Your task to perform on an android device: Open settings on Google Maps Image 0: 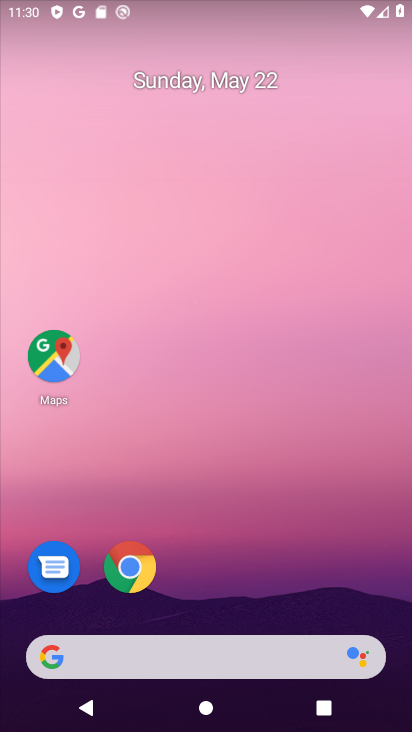
Step 0: click (37, 350)
Your task to perform on an android device: Open settings on Google Maps Image 1: 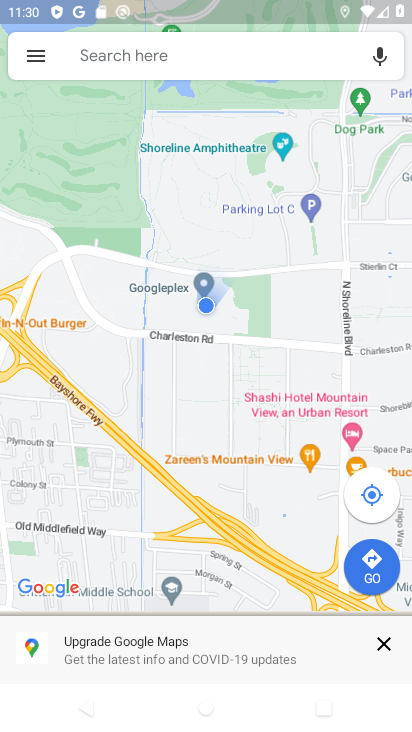
Step 1: click (24, 63)
Your task to perform on an android device: Open settings on Google Maps Image 2: 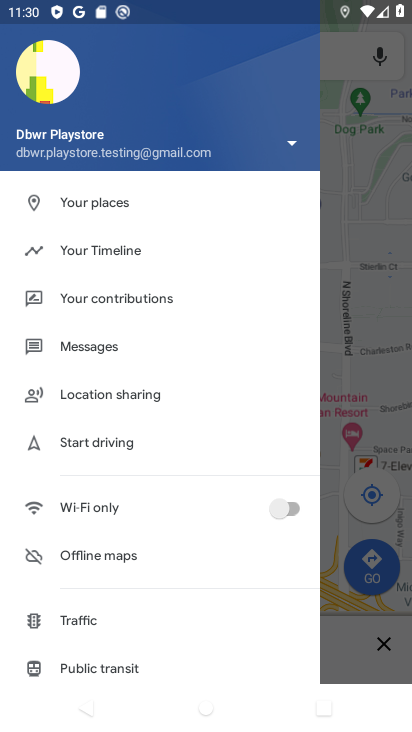
Step 2: drag from (101, 640) to (130, 256)
Your task to perform on an android device: Open settings on Google Maps Image 3: 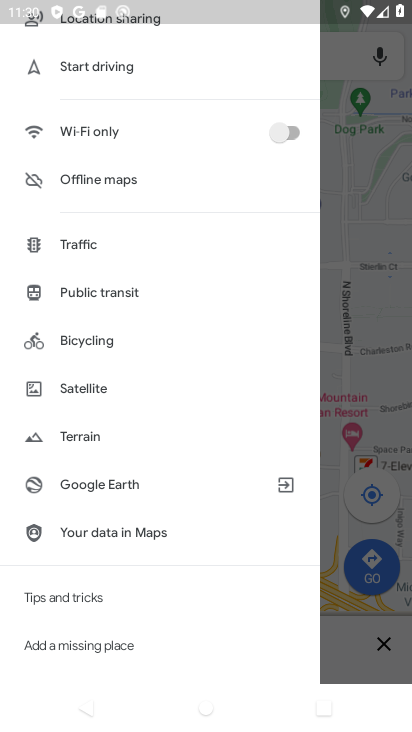
Step 3: drag from (52, 608) to (115, 277)
Your task to perform on an android device: Open settings on Google Maps Image 4: 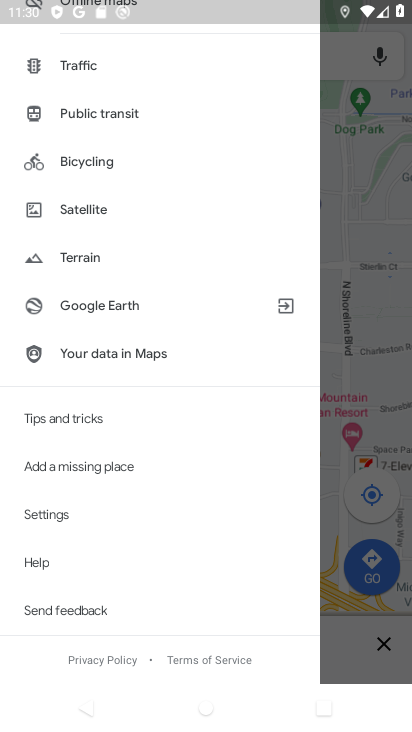
Step 4: click (46, 519)
Your task to perform on an android device: Open settings on Google Maps Image 5: 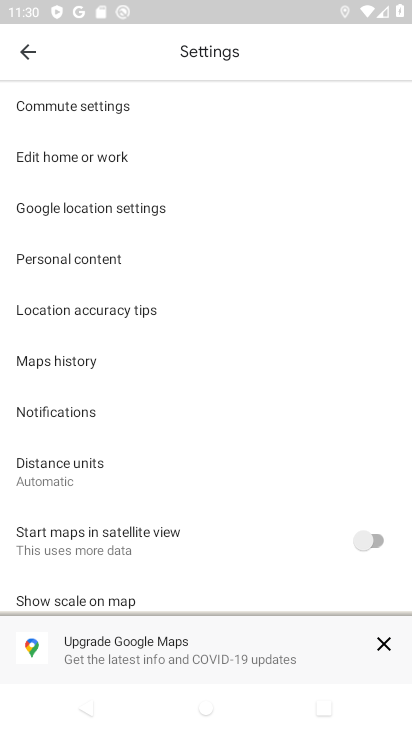
Step 5: task complete